Your task to perform on an android device: Open Maps and search for coffee Image 0: 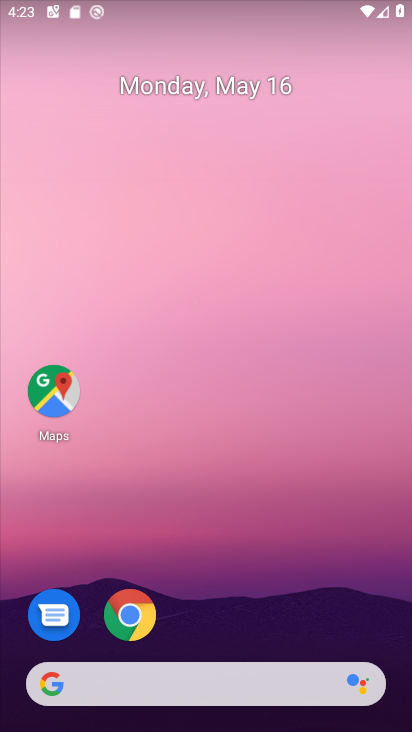
Step 0: click (62, 389)
Your task to perform on an android device: Open Maps and search for coffee Image 1: 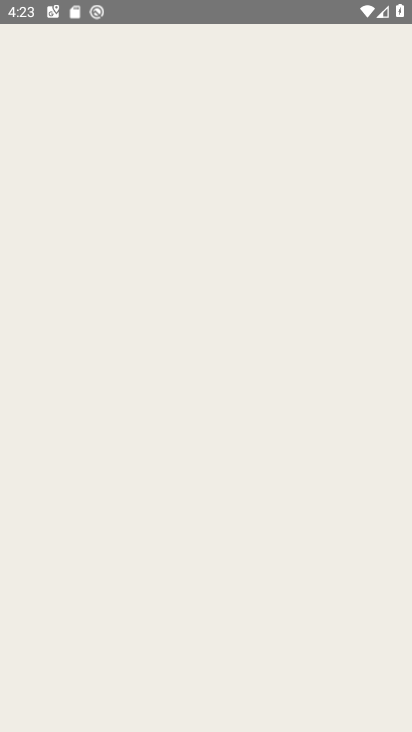
Step 1: press home button
Your task to perform on an android device: Open Maps and search for coffee Image 2: 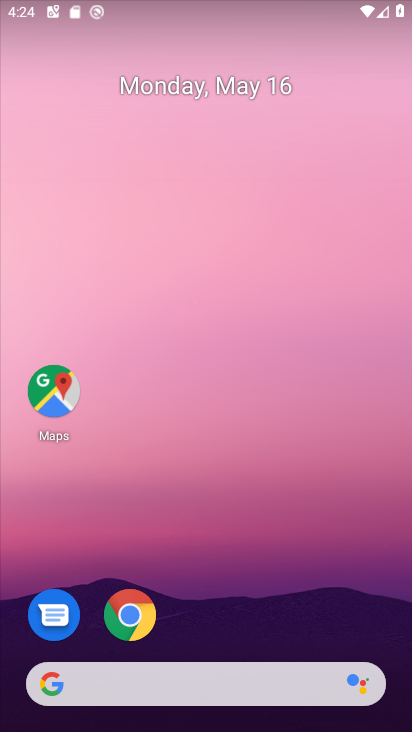
Step 2: drag from (236, 389) to (232, 41)
Your task to perform on an android device: Open Maps and search for coffee Image 3: 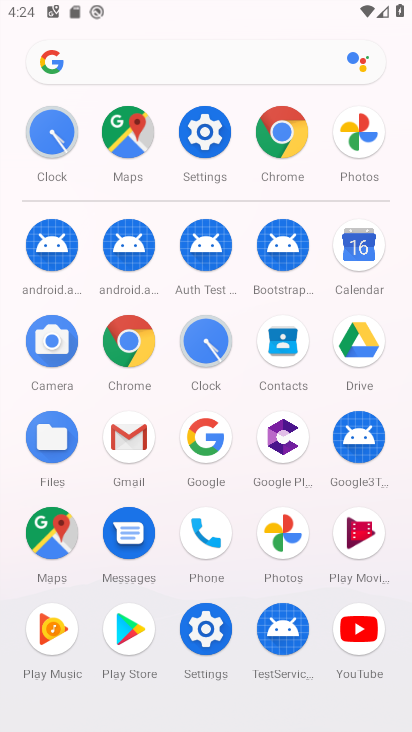
Step 3: click (190, 135)
Your task to perform on an android device: Open Maps and search for coffee Image 4: 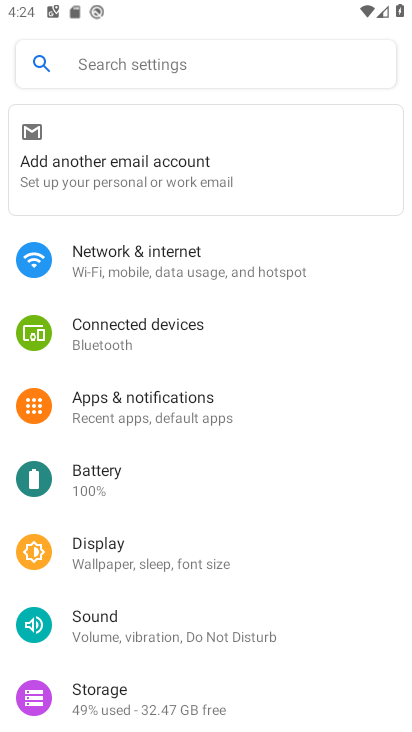
Step 4: press home button
Your task to perform on an android device: Open Maps and search for coffee Image 5: 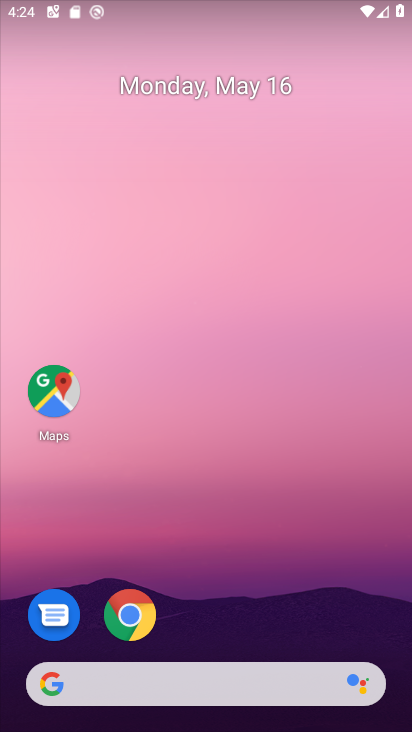
Step 5: click (47, 391)
Your task to perform on an android device: Open Maps and search for coffee Image 6: 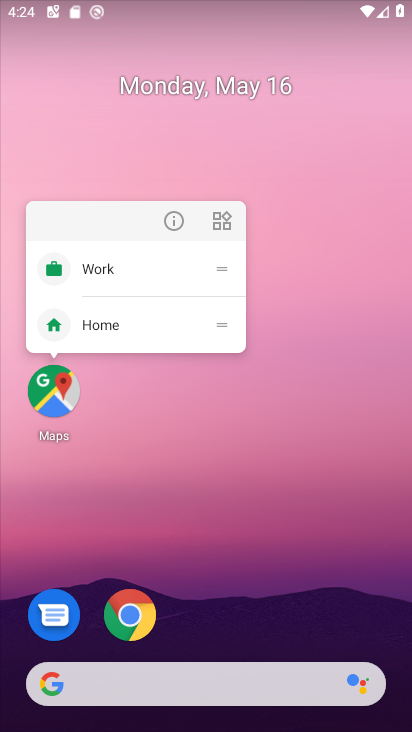
Step 6: click (54, 401)
Your task to perform on an android device: Open Maps and search for coffee Image 7: 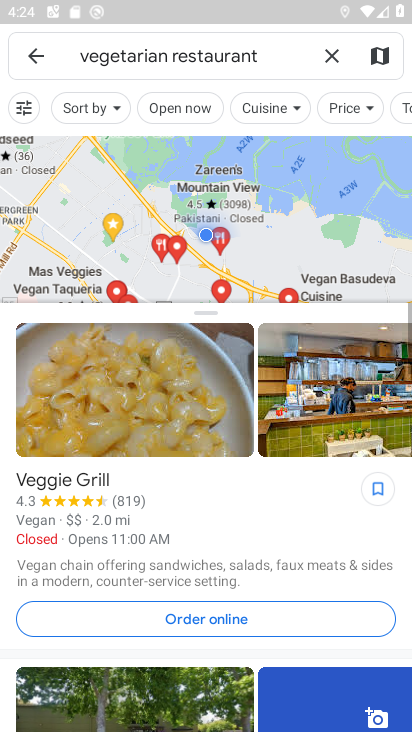
Step 7: click (322, 58)
Your task to perform on an android device: Open Maps and search for coffee Image 8: 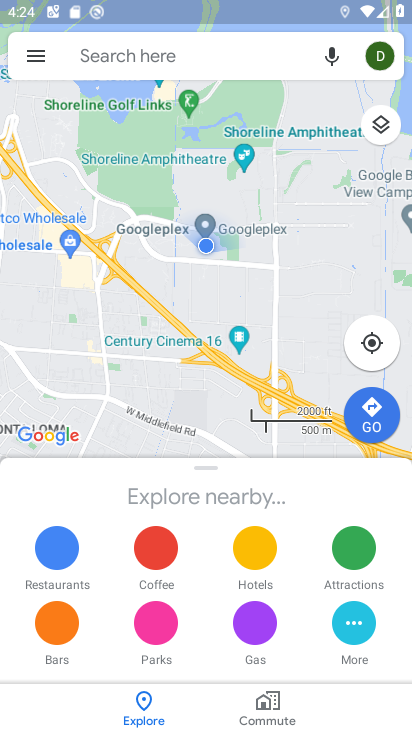
Step 8: click (218, 60)
Your task to perform on an android device: Open Maps and search for coffee Image 9: 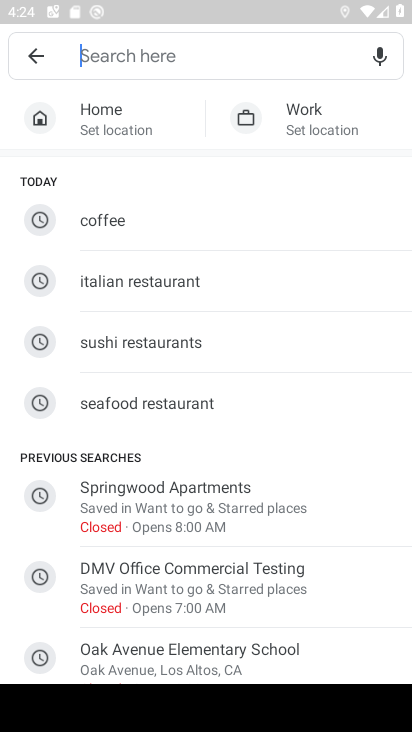
Step 9: click (164, 225)
Your task to perform on an android device: Open Maps and search for coffee Image 10: 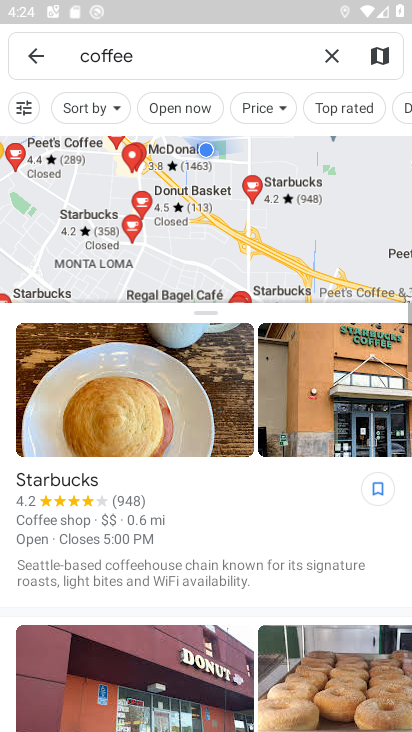
Step 10: task complete